Your task to perform on an android device: Go to Amazon Image 0: 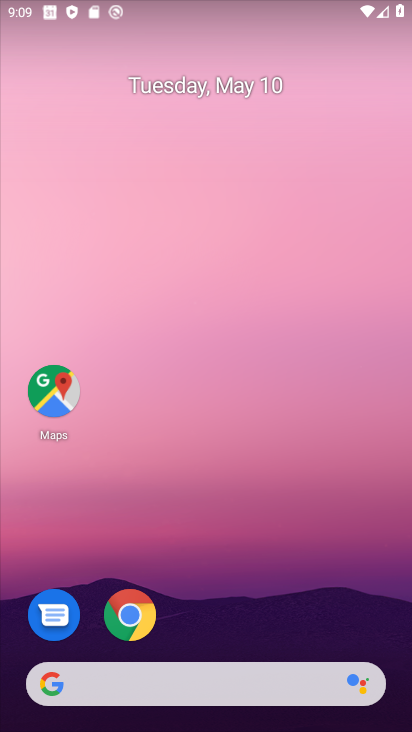
Step 0: click (137, 619)
Your task to perform on an android device: Go to Amazon Image 1: 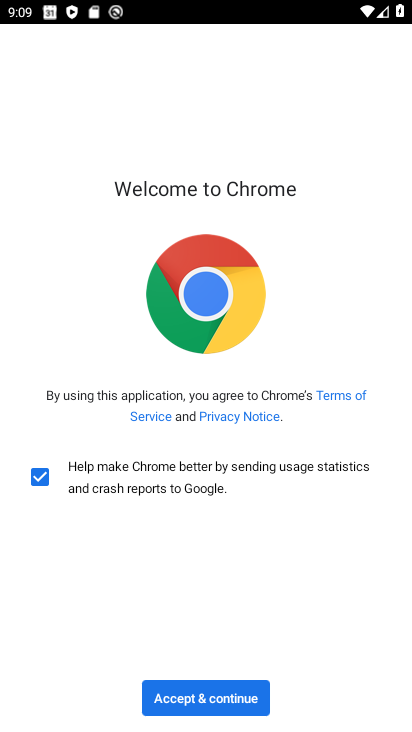
Step 1: click (208, 699)
Your task to perform on an android device: Go to Amazon Image 2: 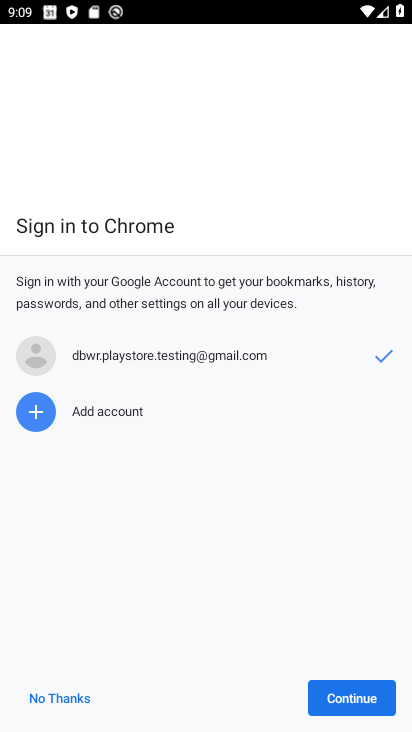
Step 2: click (364, 707)
Your task to perform on an android device: Go to Amazon Image 3: 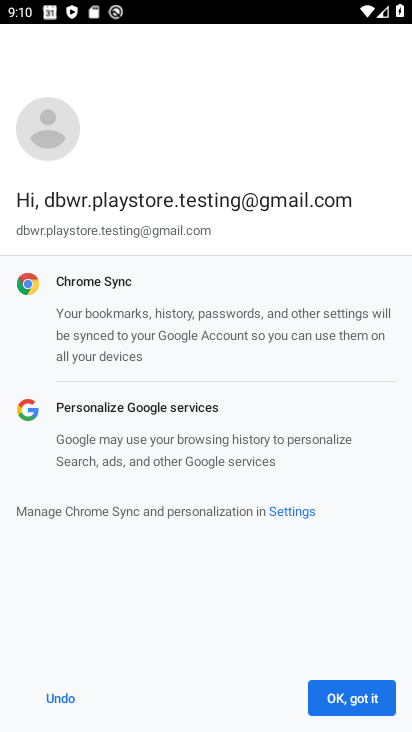
Step 3: click (357, 695)
Your task to perform on an android device: Go to Amazon Image 4: 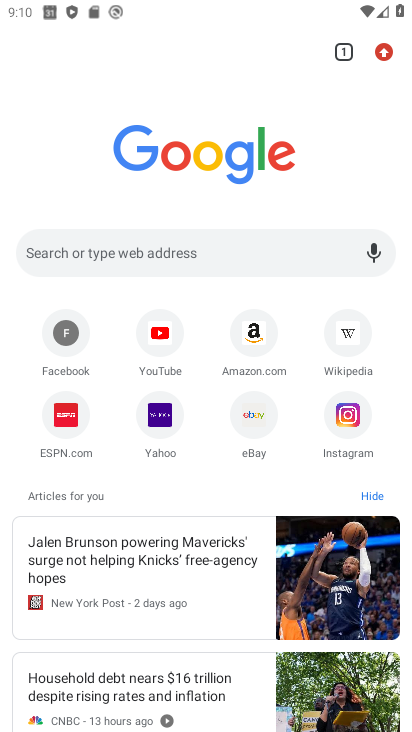
Step 4: click (250, 348)
Your task to perform on an android device: Go to Amazon Image 5: 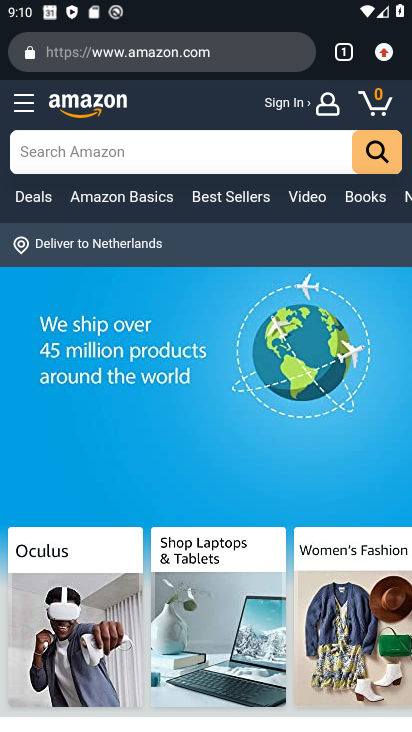
Step 5: task complete